Your task to perform on an android device: Go to accessibility settings Image 0: 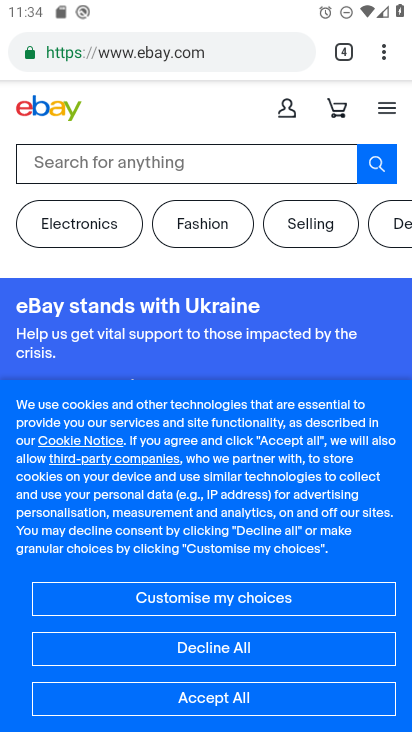
Step 0: press home button
Your task to perform on an android device: Go to accessibility settings Image 1: 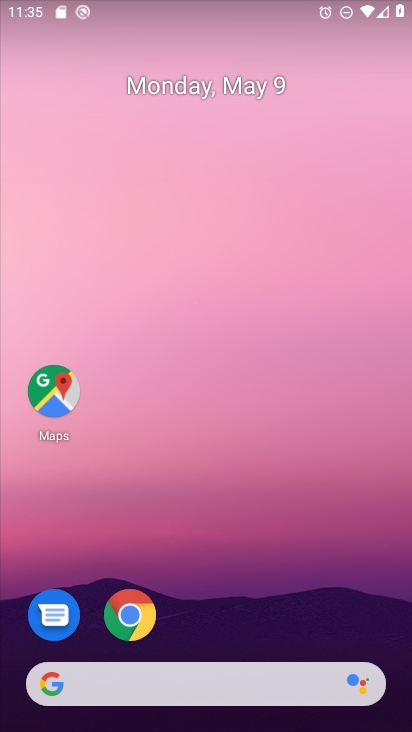
Step 1: drag from (267, 715) to (260, 357)
Your task to perform on an android device: Go to accessibility settings Image 2: 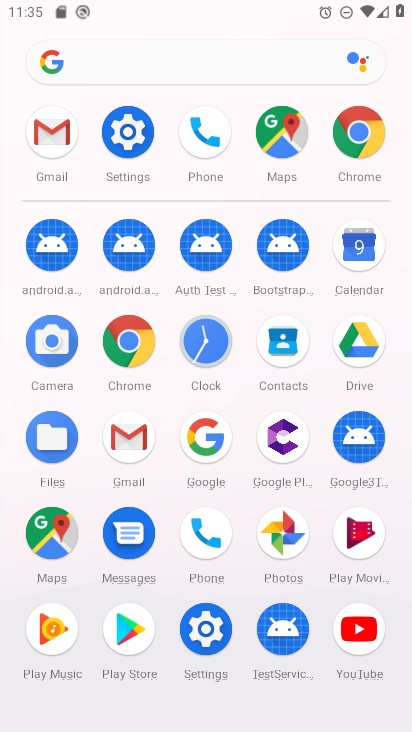
Step 2: click (143, 153)
Your task to perform on an android device: Go to accessibility settings Image 3: 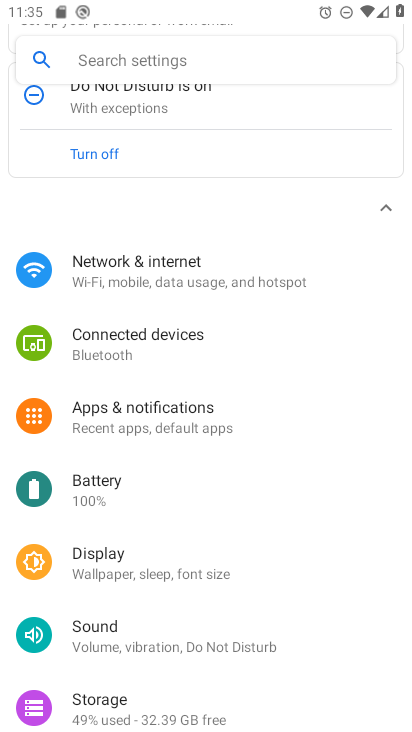
Step 3: click (164, 60)
Your task to perform on an android device: Go to accessibility settings Image 4: 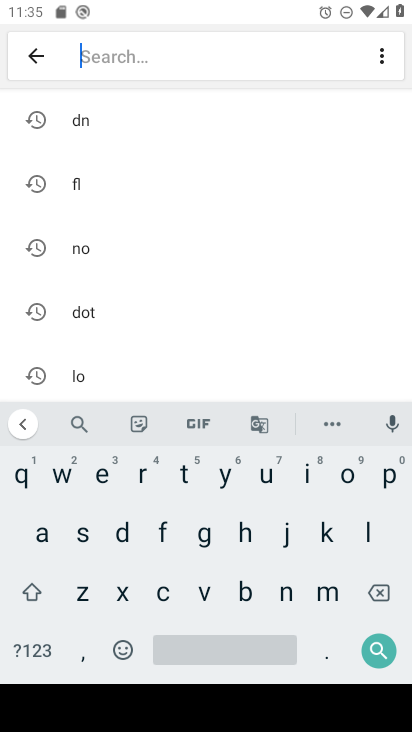
Step 4: click (27, 554)
Your task to perform on an android device: Go to accessibility settings Image 5: 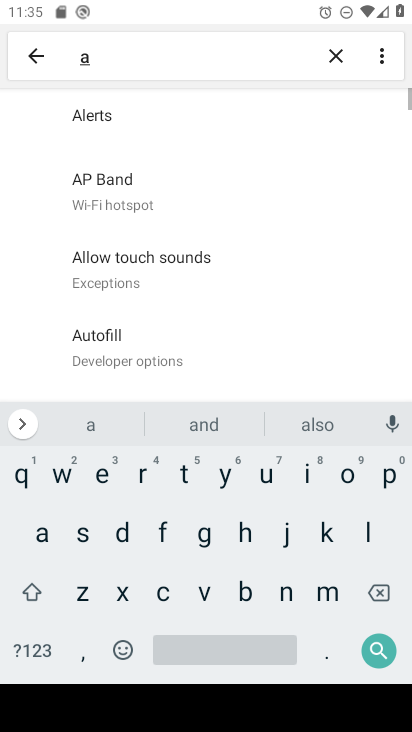
Step 5: click (163, 594)
Your task to perform on an android device: Go to accessibility settings Image 6: 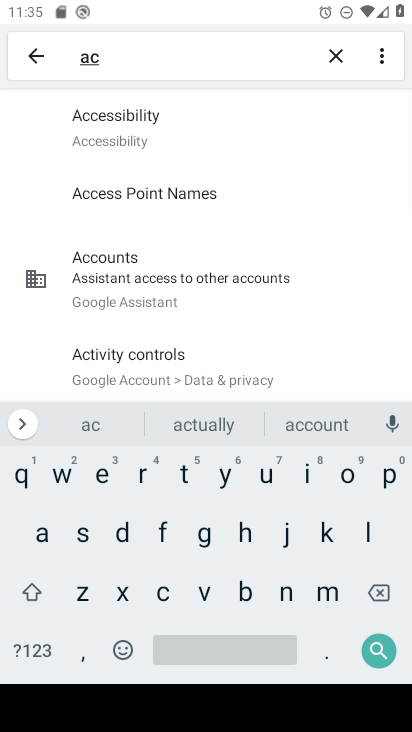
Step 6: click (116, 128)
Your task to perform on an android device: Go to accessibility settings Image 7: 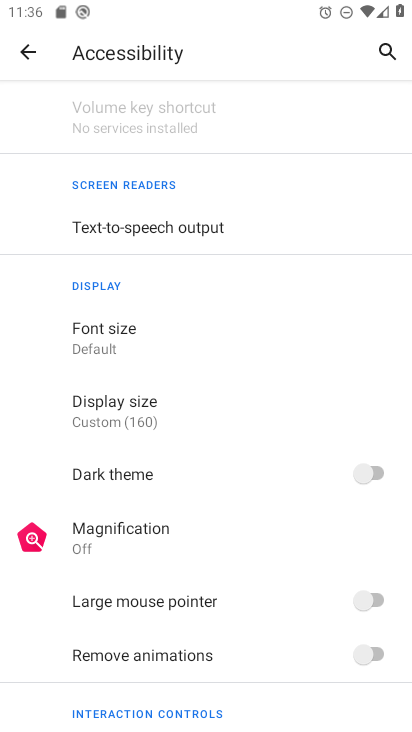
Step 7: task complete